Your task to perform on an android device: turn on the 12-hour format for clock Image 0: 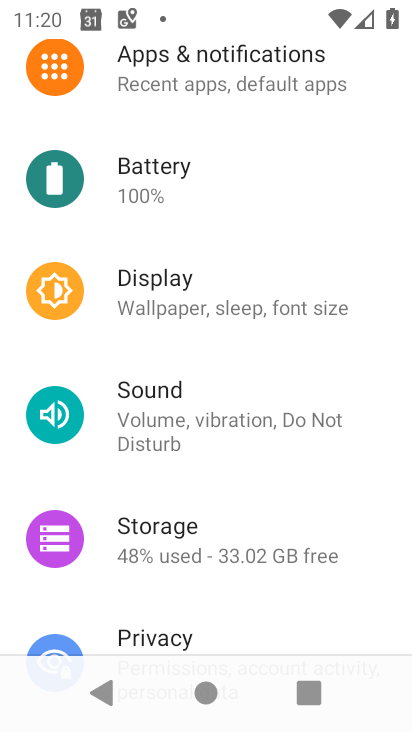
Step 0: press home button
Your task to perform on an android device: turn on the 12-hour format for clock Image 1: 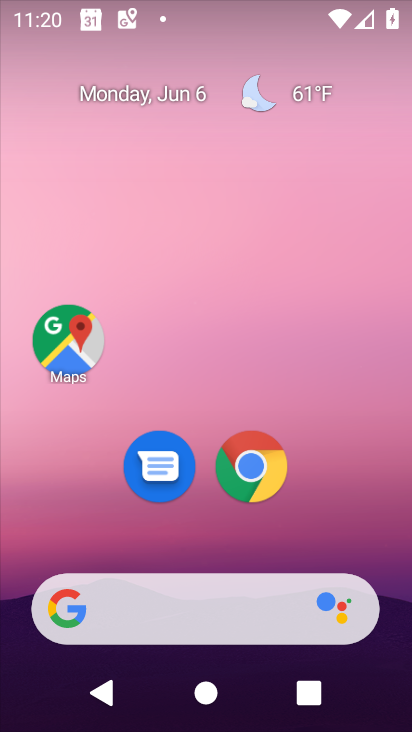
Step 1: drag from (232, 549) to (244, 384)
Your task to perform on an android device: turn on the 12-hour format for clock Image 2: 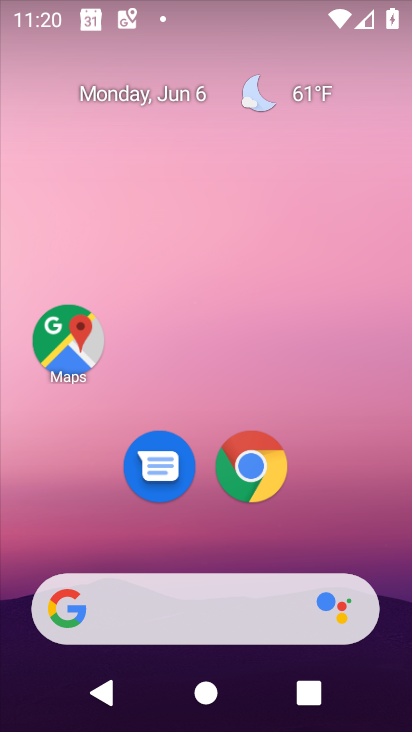
Step 2: drag from (250, 364) to (269, 13)
Your task to perform on an android device: turn on the 12-hour format for clock Image 3: 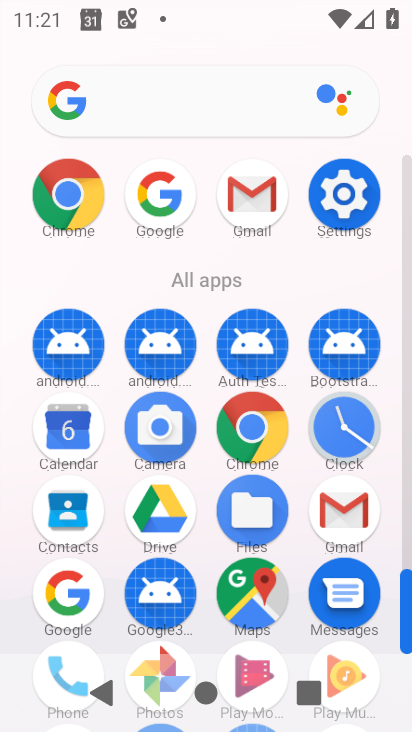
Step 3: click (299, 424)
Your task to perform on an android device: turn on the 12-hour format for clock Image 4: 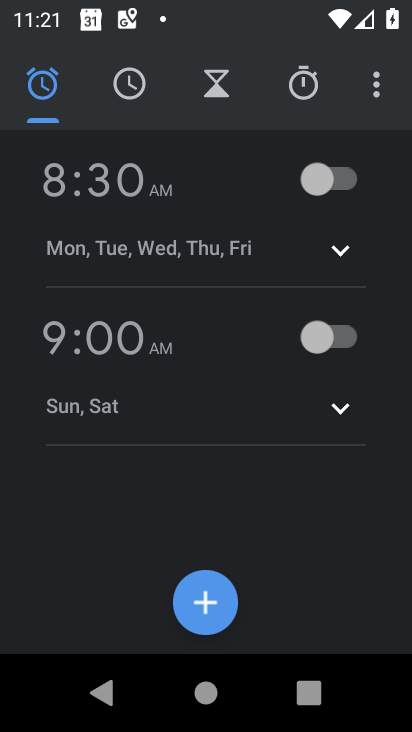
Step 4: click (358, 77)
Your task to perform on an android device: turn on the 12-hour format for clock Image 5: 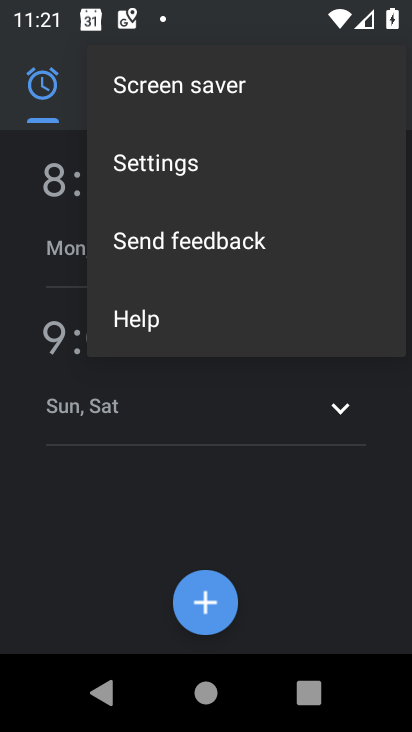
Step 5: click (217, 163)
Your task to perform on an android device: turn on the 12-hour format for clock Image 6: 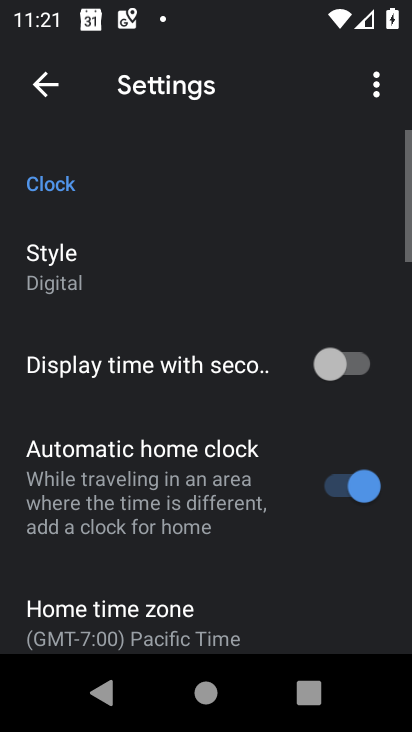
Step 6: drag from (239, 545) to (231, 177)
Your task to perform on an android device: turn on the 12-hour format for clock Image 7: 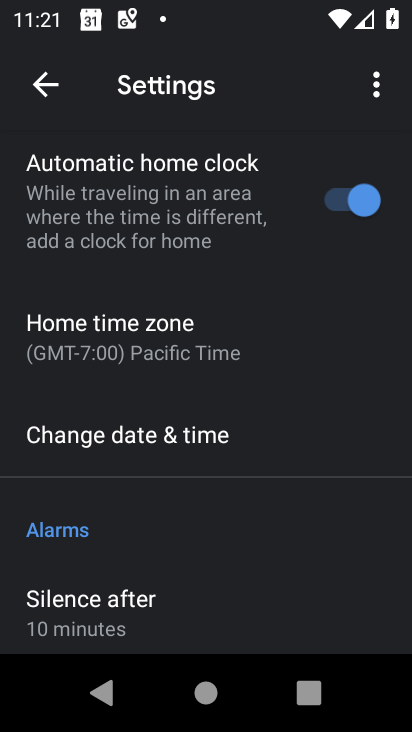
Step 7: click (143, 430)
Your task to perform on an android device: turn on the 12-hour format for clock Image 8: 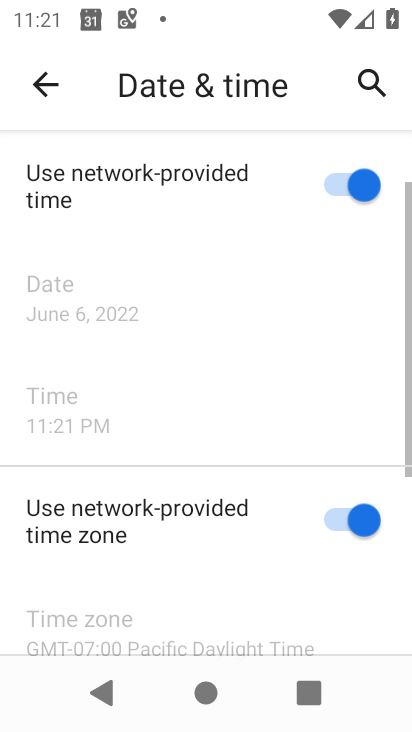
Step 8: drag from (197, 386) to (244, 91)
Your task to perform on an android device: turn on the 12-hour format for clock Image 9: 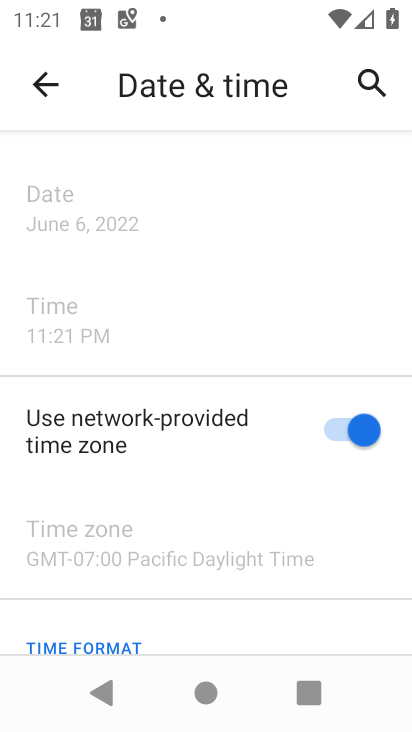
Step 9: drag from (276, 595) to (168, 70)
Your task to perform on an android device: turn on the 12-hour format for clock Image 10: 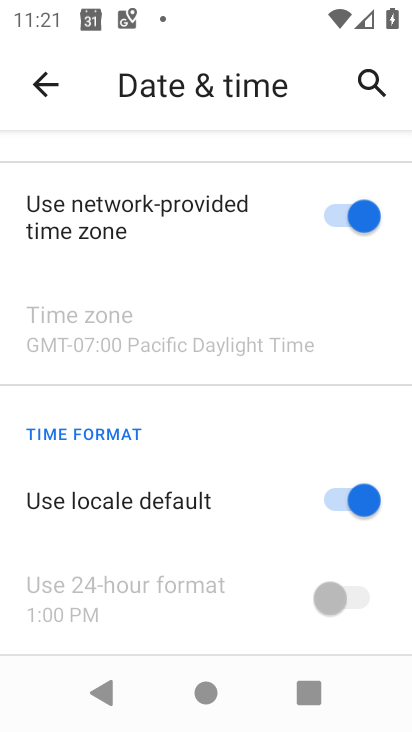
Step 10: click (225, 511)
Your task to perform on an android device: turn on the 12-hour format for clock Image 11: 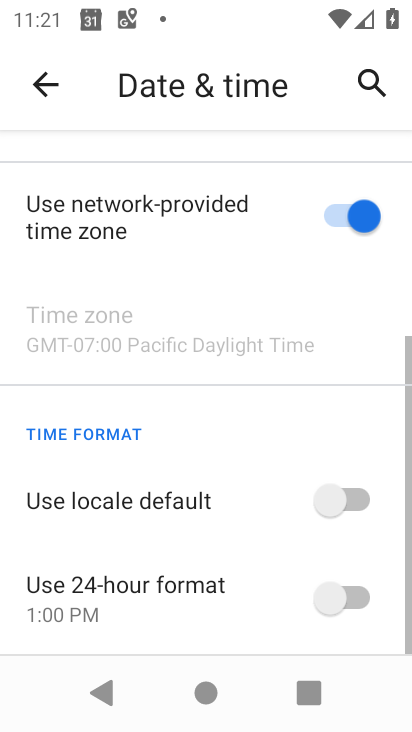
Step 11: click (219, 596)
Your task to perform on an android device: turn on the 12-hour format for clock Image 12: 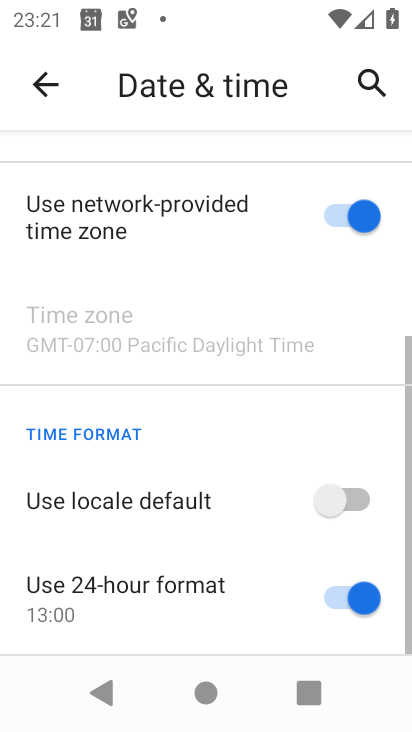
Step 12: task complete